Your task to perform on an android device: open app "Booking.com: Hotels and more" (install if not already installed) and enter user name: "misting@outlook.com" and password: "blandly" Image 0: 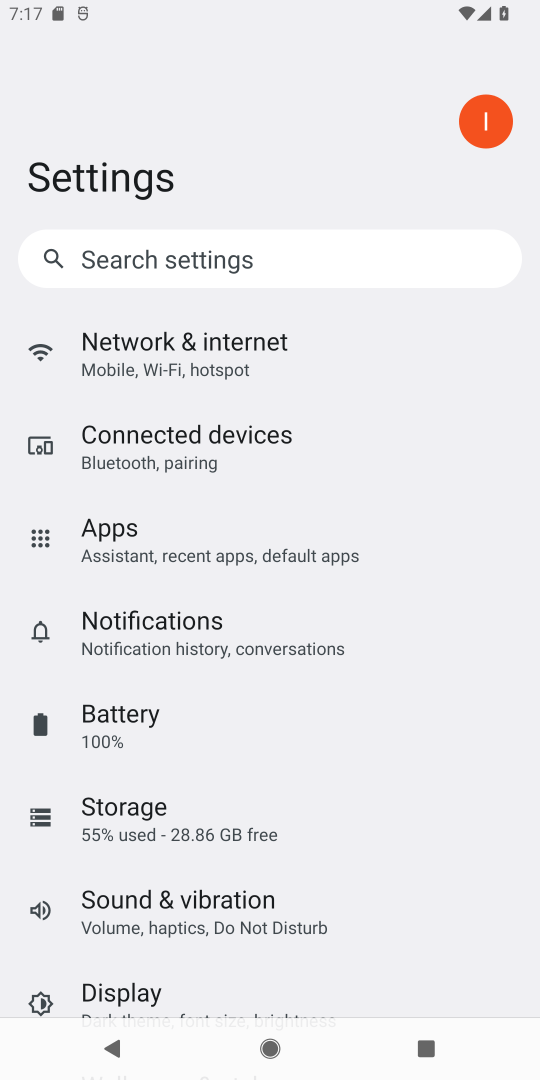
Step 0: press home button
Your task to perform on an android device: open app "Booking.com: Hotels and more" (install if not already installed) and enter user name: "misting@outlook.com" and password: "blandly" Image 1: 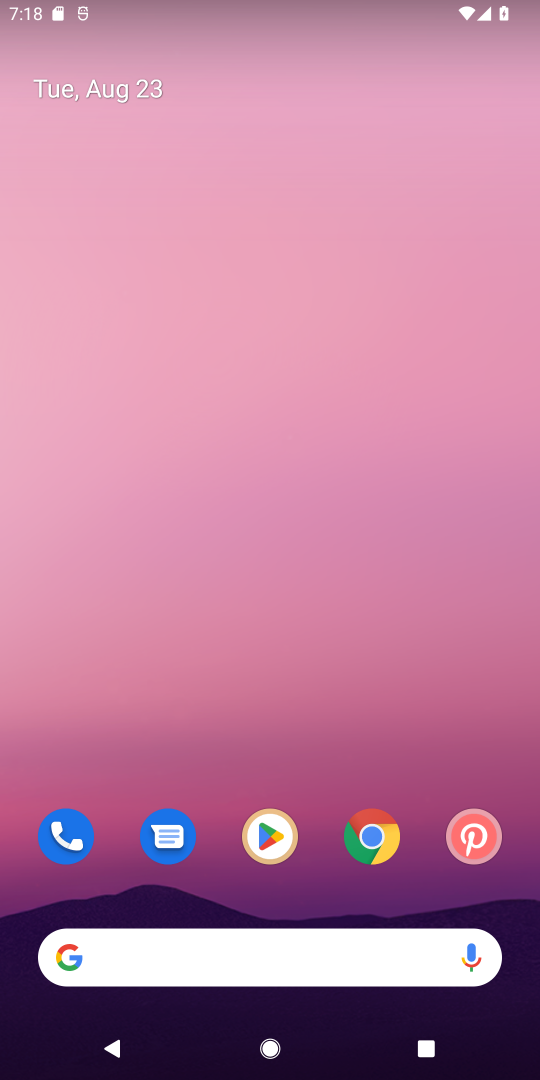
Step 1: click (276, 837)
Your task to perform on an android device: open app "Booking.com: Hotels and more" (install if not already installed) and enter user name: "misting@outlook.com" and password: "blandly" Image 2: 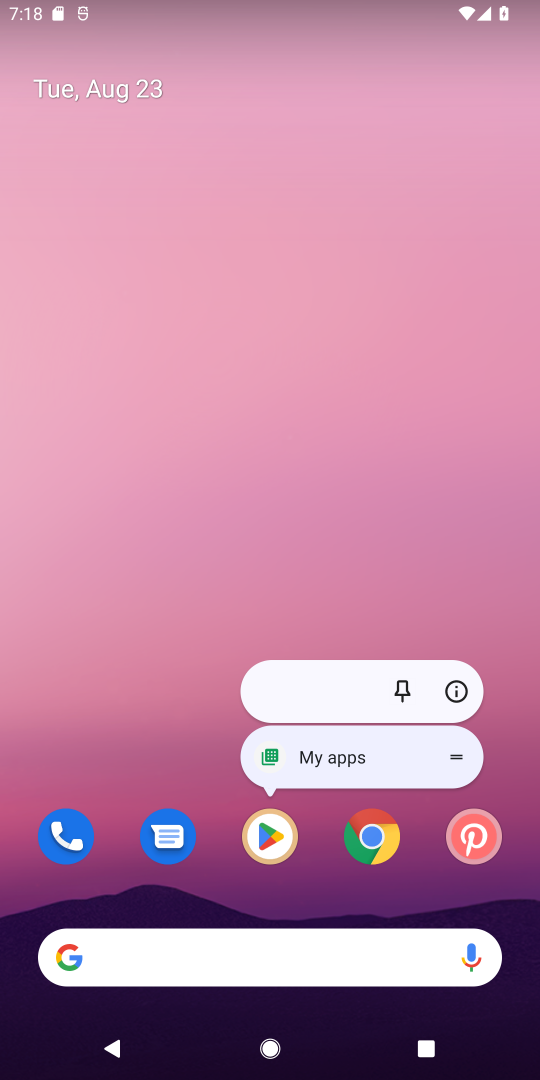
Step 2: click (272, 839)
Your task to perform on an android device: open app "Booking.com: Hotels and more" (install if not already installed) and enter user name: "misting@outlook.com" and password: "blandly" Image 3: 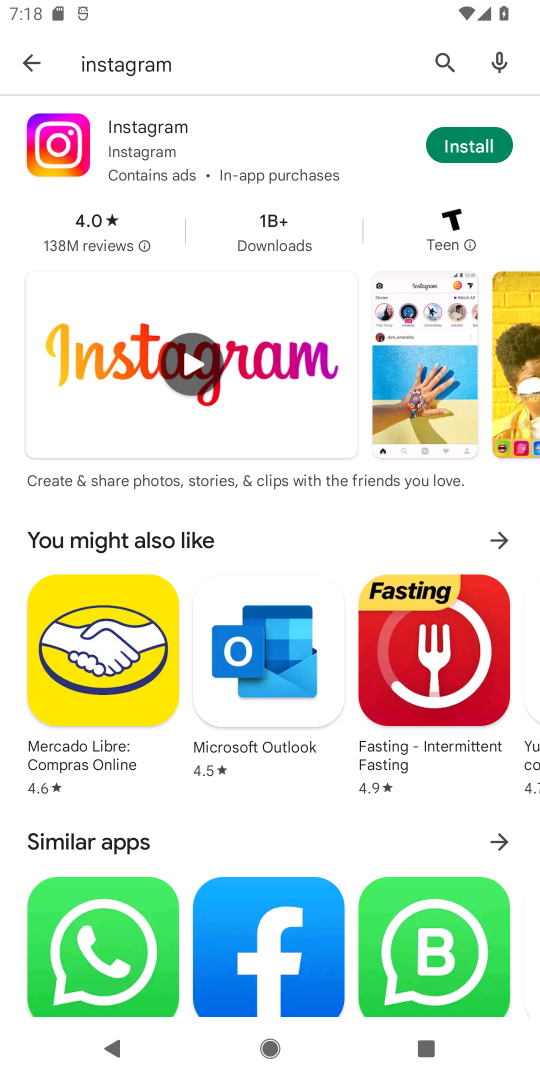
Step 3: click (438, 42)
Your task to perform on an android device: open app "Booking.com: Hotels and more" (install if not already installed) and enter user name: "misting@outlook.com" and password: "blandly" Image 4: 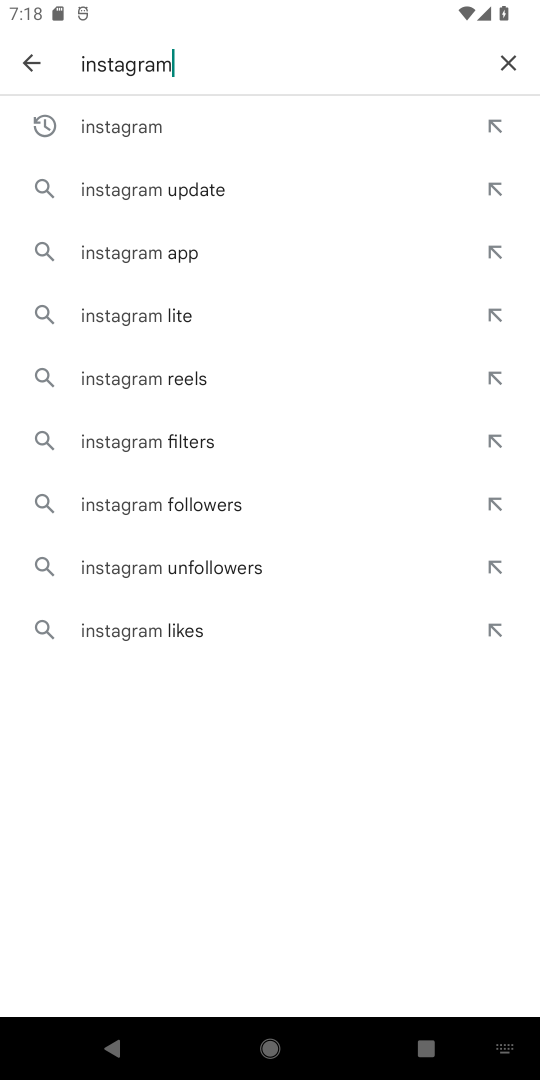
Step 4: click (497, 61)
Your task to perform on an android device: open app "Booking.com: Hotels and more" (install if not already installed) and enter user name: "misting@outlook.com" and password: "blandly" Image 5: 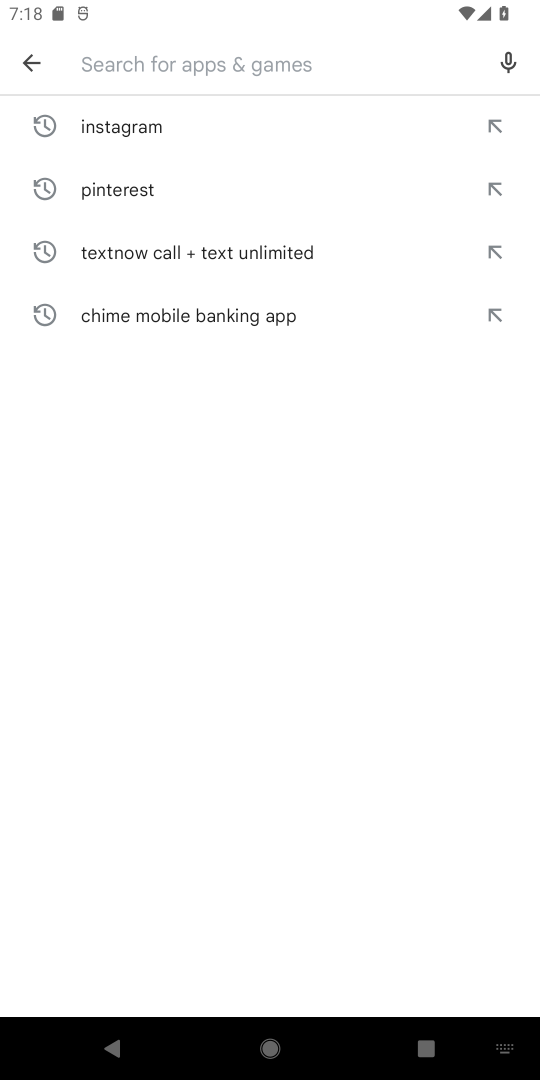
Step 5: type "Booking.com: Hotels and more"
Your task to perform on an android device: open app "Booking.com: Hotels and more" (install if not already installed) and enter user name: "misting@outlook.com" and password: "blandly" Image 6: 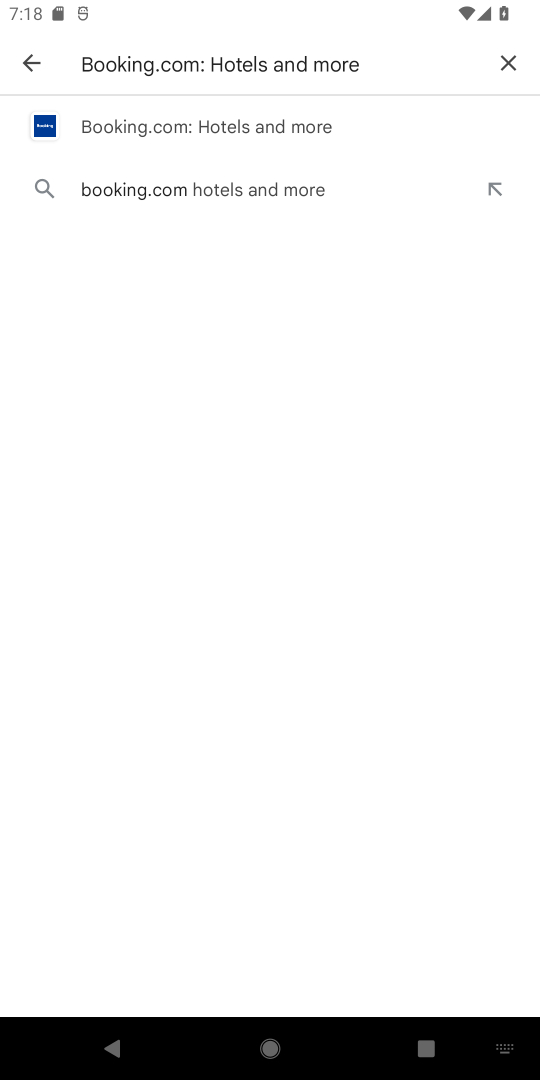
Step 6: click (235, 131)
Your task to perform on an android device: open app "Booking.com: Hotels and more" (install if not already installed) and enter user name: "misting@outlook.com" and password: "blandly" Image 7: 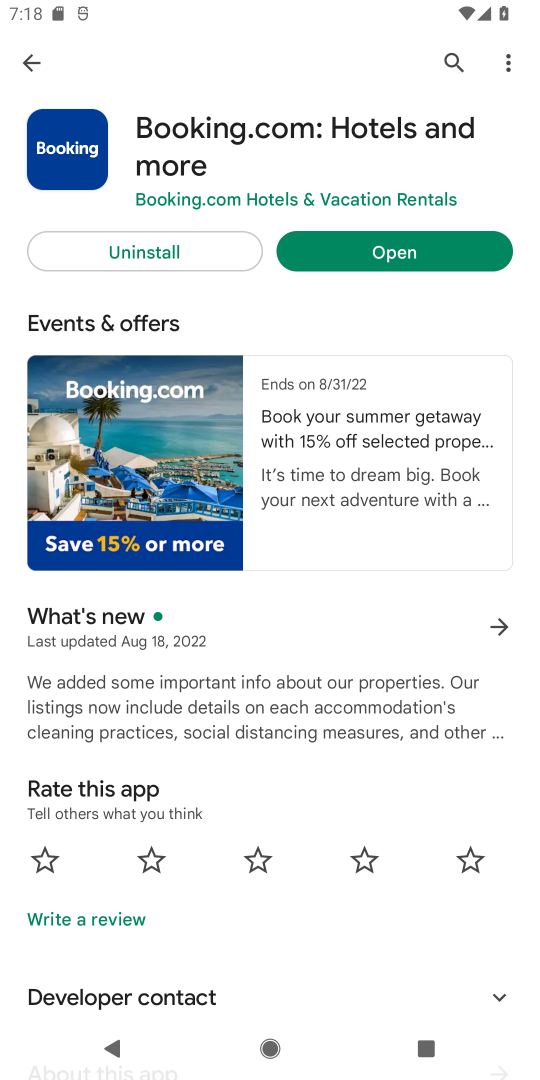
Step 7: click (374, 254)
Your task to perform on an android device: open app "Booking.com: Hotels and more" (install if not already installed) and enter user name: "misting@outlook.com" and password: "blandly" Image 8: 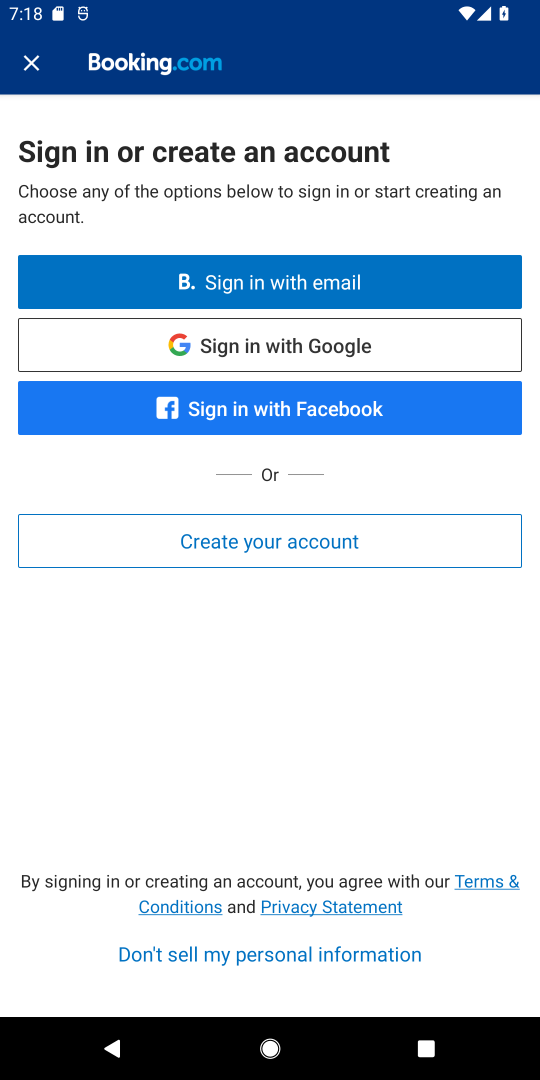
Step 8: click (325, 282)
Your task to perform on an android device: open app "Booking.com: Hotels and more" (install if not already installed) and enter user name: "misting@outlook.com" and password: "blandly" Image 9: 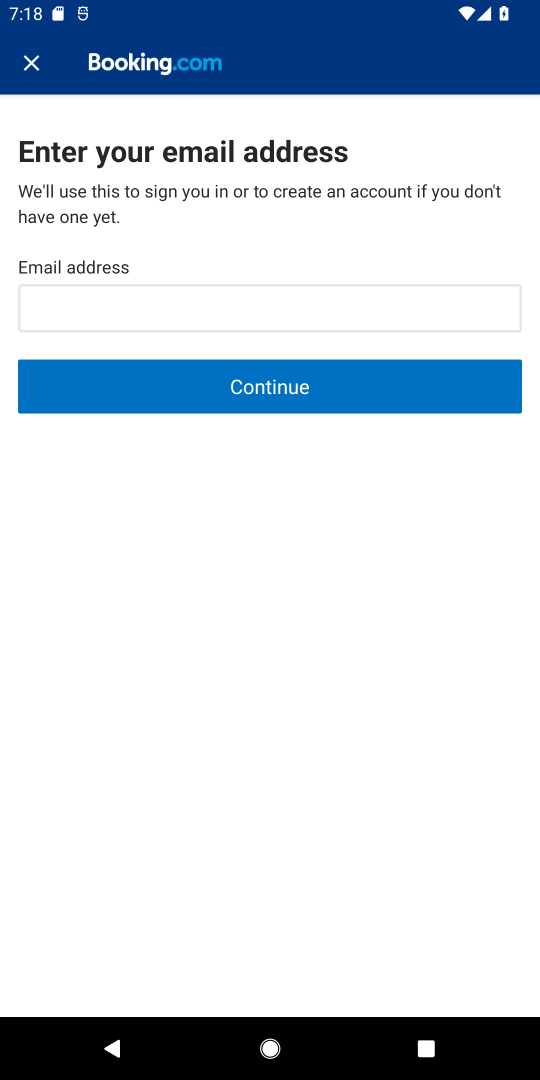
Step 9: click (178, 303)
Your task to perform on an android device: open app "Booking.com: Hotels and more" (install if not already installed) and enter user name: "misting@outlook.com" and password: "blandly" Image 10: 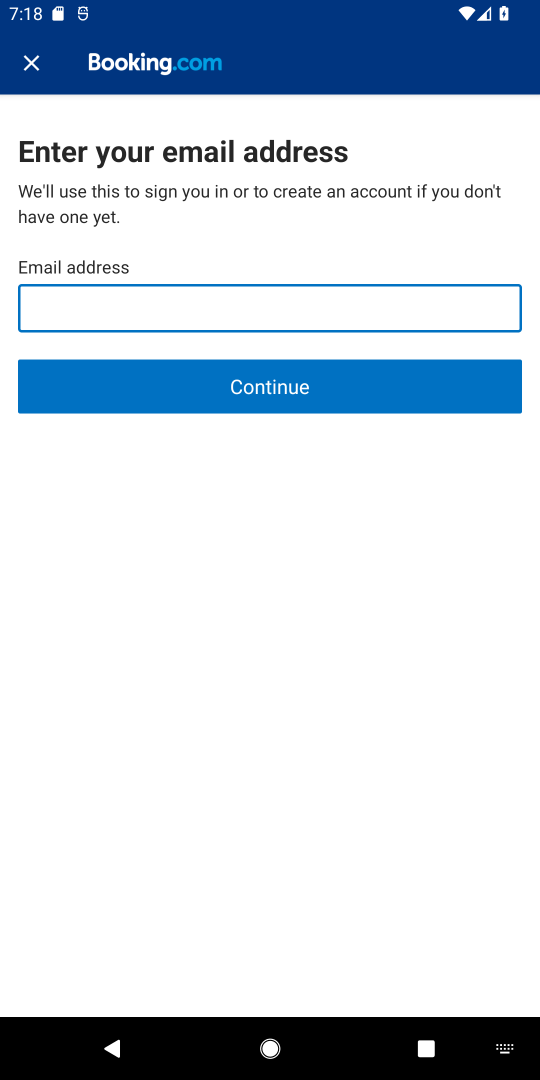
Step 10: type "misting@outlook.com"
Your task to perform on an android device: open app "Booking.com: Hotels and more" (install if not already installed) and enter user name: "misting@outlook.com" and password: "blandly" Image 11: 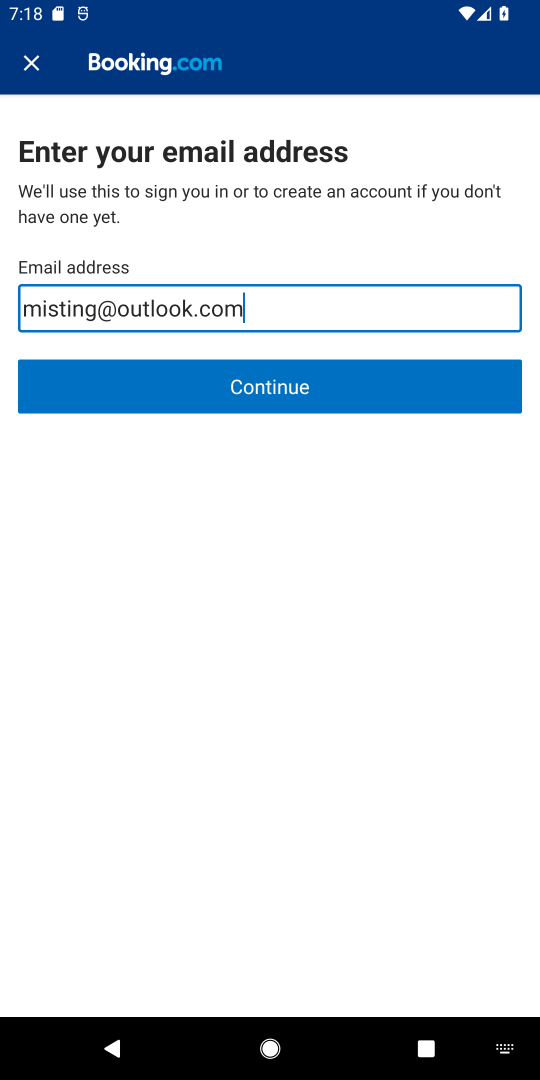
Step 11: click (292, 381)
Your task to perform on an android device: open app "Booking.com: Hotels and more" (install if not already installed) and enter user name: "misting@outlook.com" and password: "blandly" Image 12: 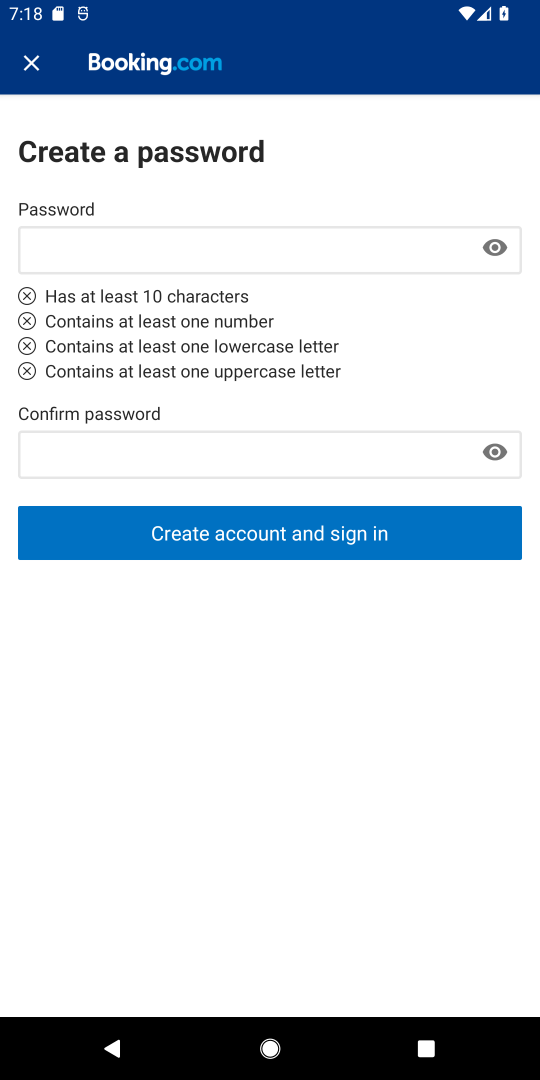
Step 12: click (123, 245)
Your task to perform on an android device: open app "Booking.com: Hotels and more" (install if not already installed) and enter user name: "misting@outlook.com" and password: "blandly" Image 13: 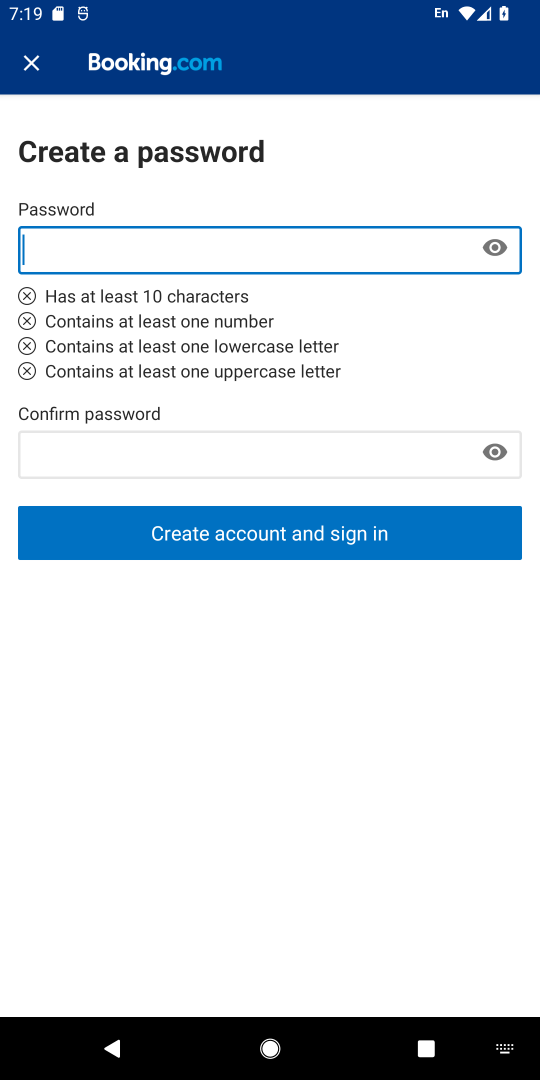
Step 13: type "blandly"
Your task to perform on an android device: open app "Booking.com: Hotels and more" (install if not already installed) and enter user name: "misting@outlook.com" and password: "blandly" Image 14: 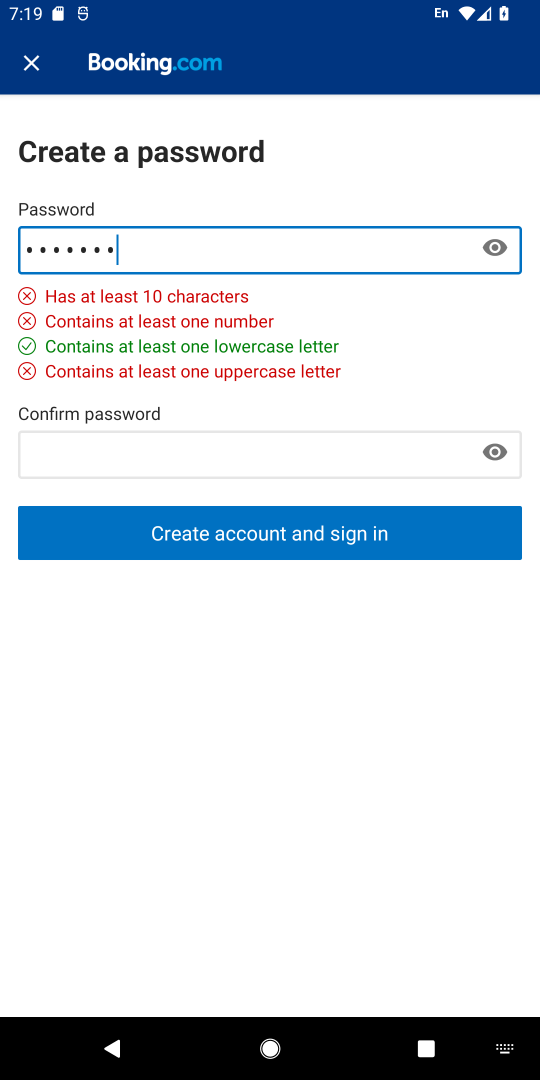
Step 14: task complete